Your task to perform on an android device: create a new album in the google photos Image 0: 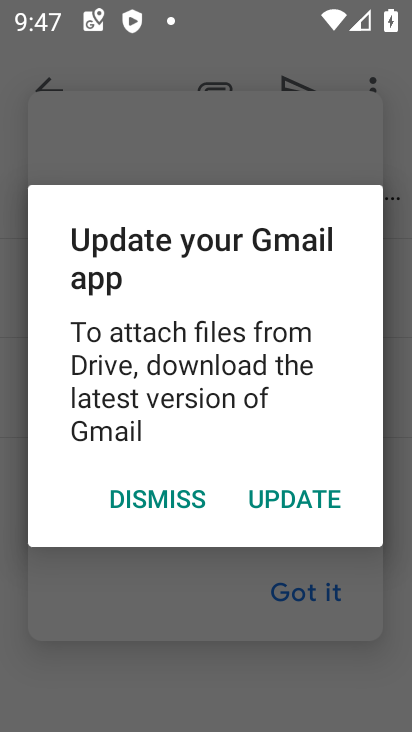
Step 0: press home button
Your task to perform on an android device: create a new album in the google photos Image 1: 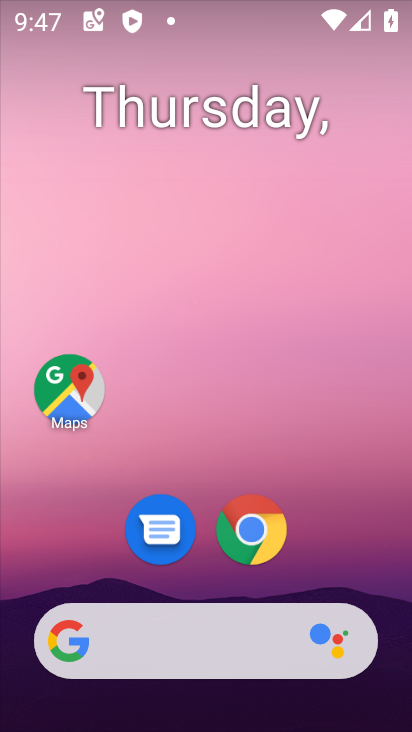
Step 1: drag from (325, 587) to (296, 57)
Your task to perform on an android device: create a new album in the google photos Image 2: 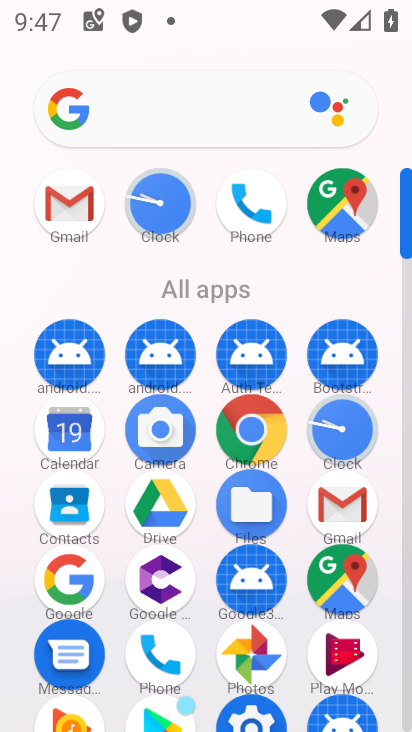
Step 2: click (237, 644)
Your task to perform on an android device: create a new album in the google photos Image 3: 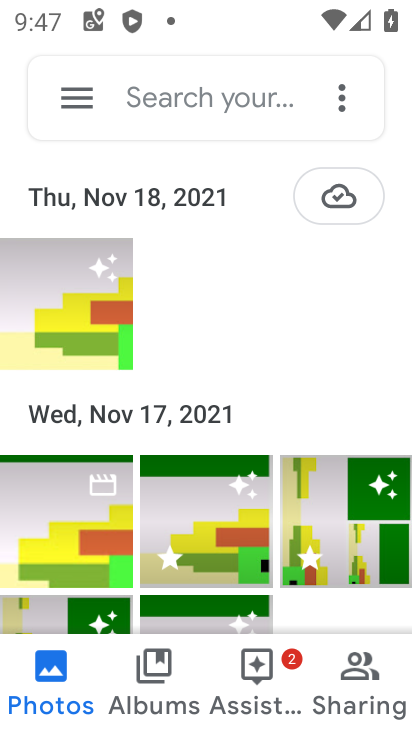
Step 3: click (156, 670)
Your task to perform on an android device: create a new album in the google photos Image 4: 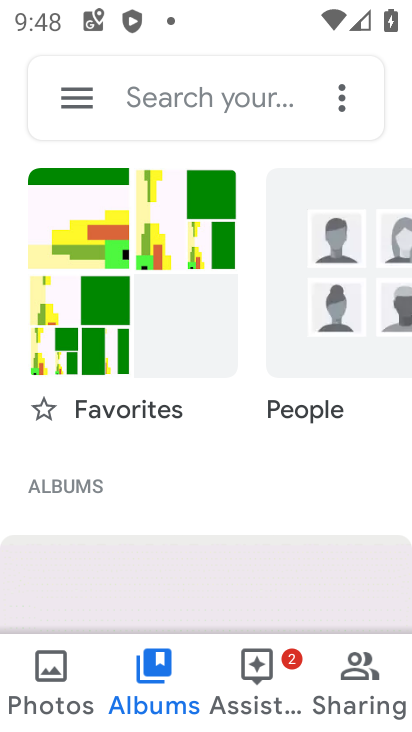
Step 4: drag from (135, 541) to (132, 133)
Your task to perform on an android device: create a new album in the google photos Image 5: 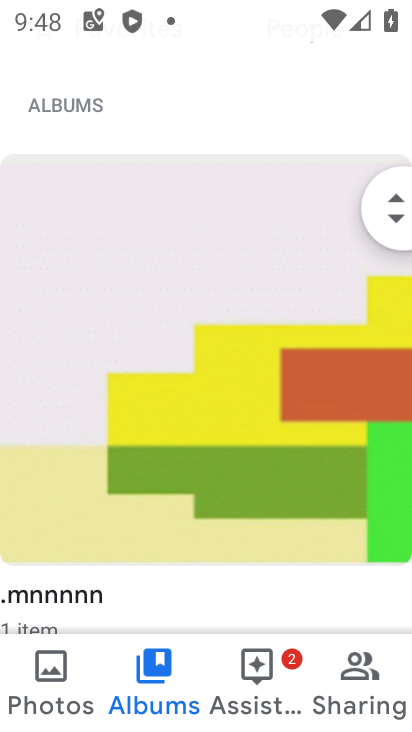
Step 5: drag from (150, 384) to (149, 692)
Your task to perform on an android device: create a new album in the google photos Image 6: 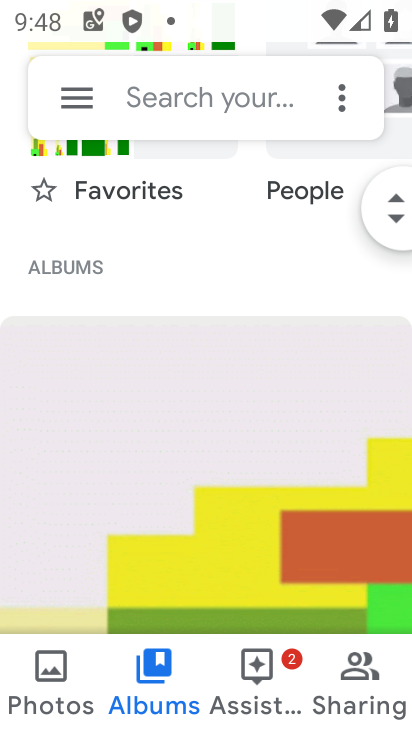
Step 6: click (336, 95)
Your task to perform on an android device: create a new album in the google photos Image 7: 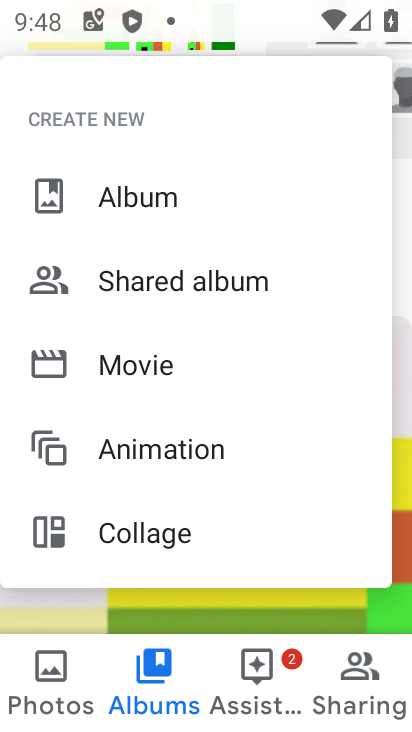
Step 7: click (103, 208)
Your task to perform on an android device: create a new album in the google photos Image 8: 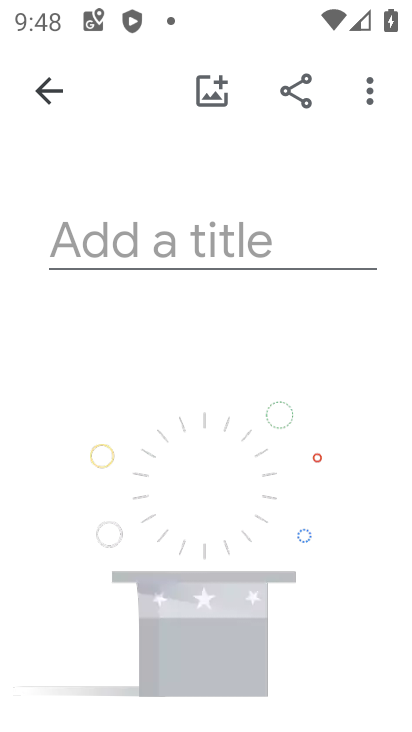
Step 8: click (103, 242)
Your task to perform on an android device: create a new album in the google photos Image 9: 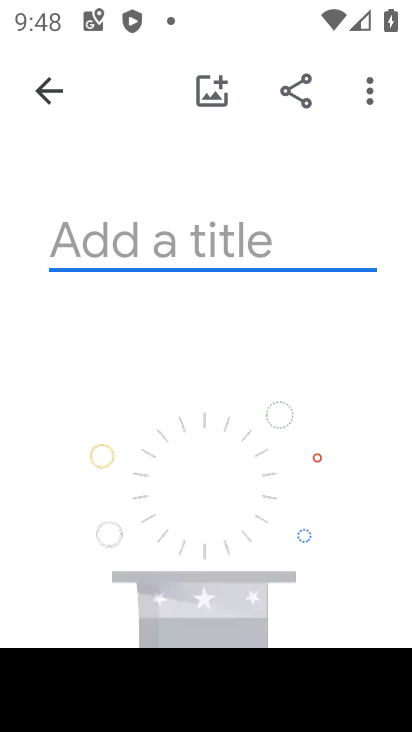
Step 9: type "mlpoknbjiuhvcgytfxzdresawq"
Your task to perform on an android device: create a new album in the google photos Image 10: 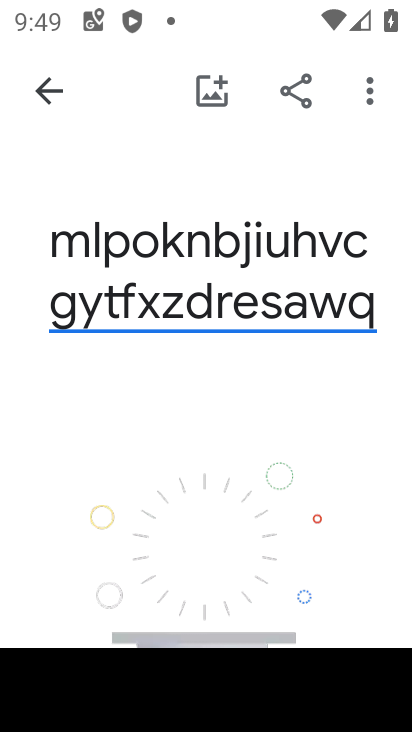
Step 10: drag from (167, 595) to (213, 204)
Your task to perform on an android device: create a new album in the google photos Image 11: 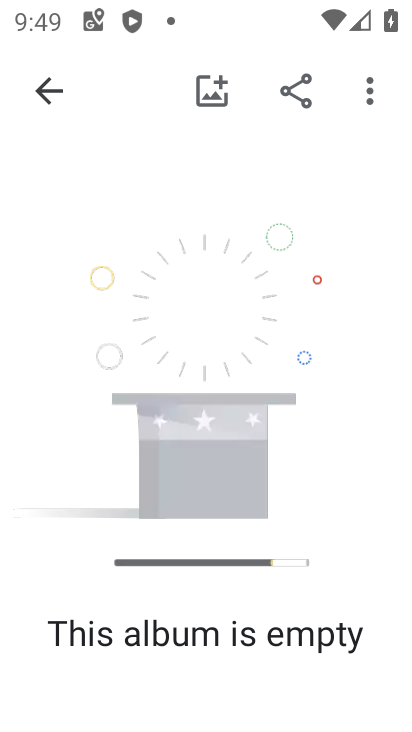
Step 11: click (225, 96)
Your task to perform on an android device: create a new album in the google photos Image 12: 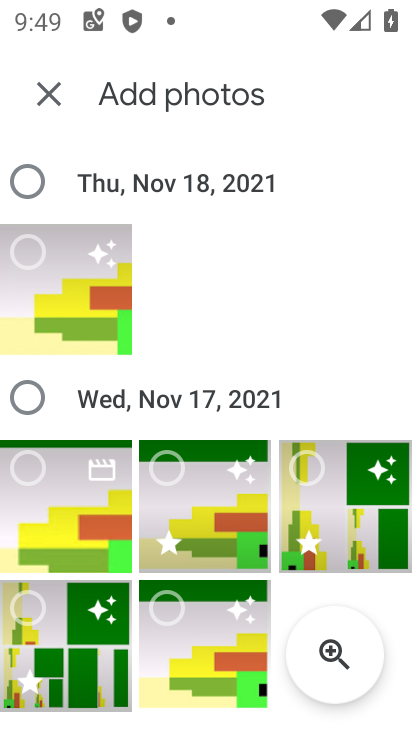
Step 12: click (85, 313)
Your task to perform on an android device: create a new album in the google photos Image 13: 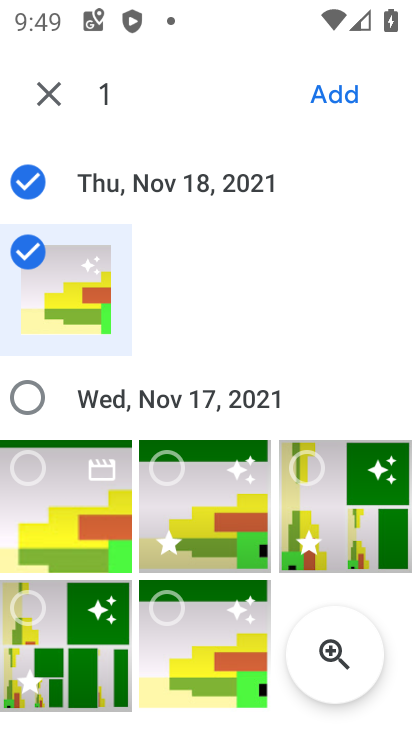
Step 13: click (342, 93)
Your task to perform on an android device: create a new album in the google photos Image 14: 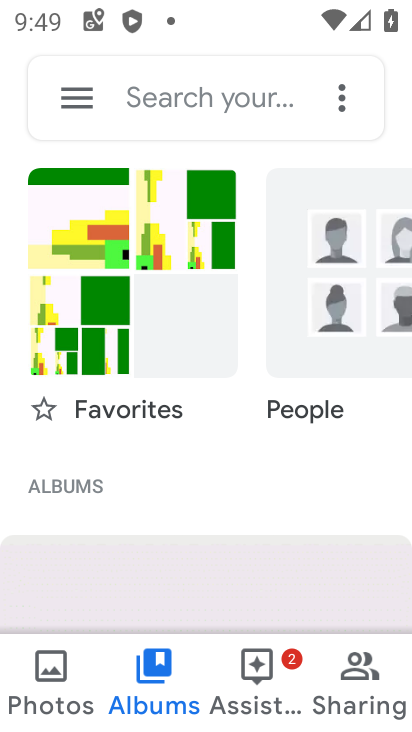
Step 14: task complete